Your task to perform on an android device: toggle notifications settings in the gmail app Image 0: 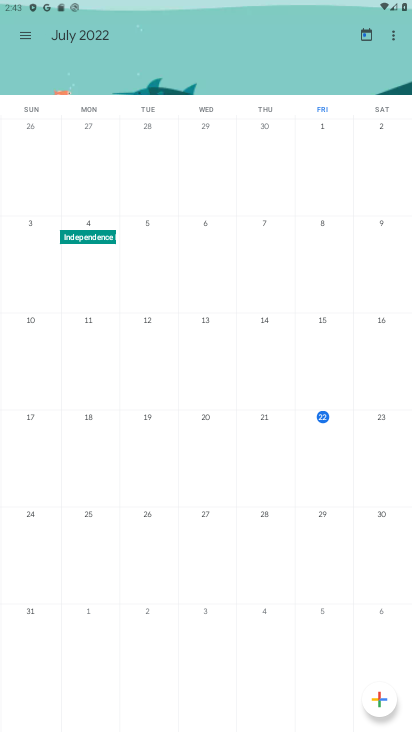
Step 0: press home button
Your task to perform on an android device: toggle notifications settings in the gmail app Image 1: 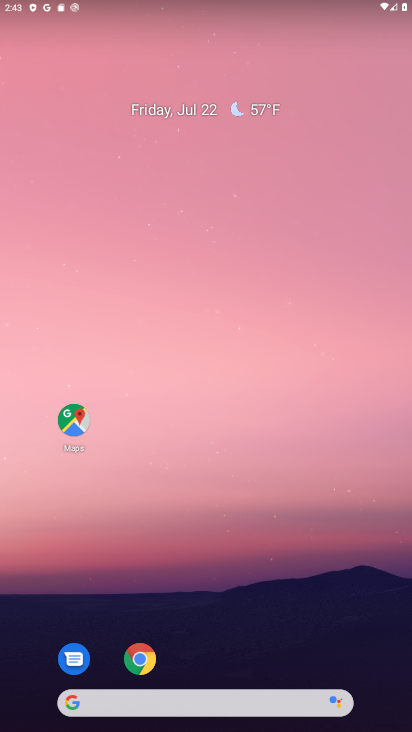
Step 1: drag from (216, 640) to (216, 54)
Your task to perform on an android device: toggle notifications settings in the gmail app Image 2: 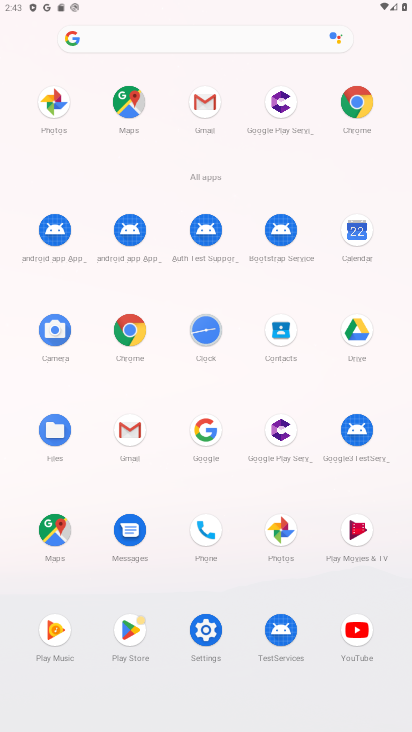
Step 2: click (122, 432)
Your task to perform on an android device: toggle notifications settings in the gmail app Image 3: 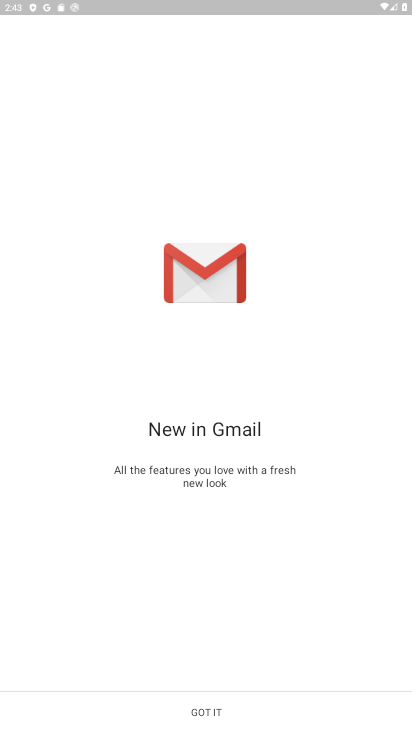
Step 3: click (192, 717)
Your task to perform on an android device: toggle notifications settings in the gmail app Image 4: 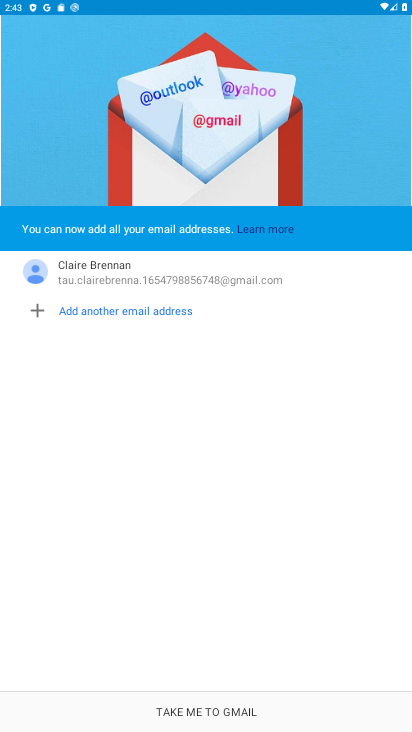
Step 4: click (192, 717)
Your task to perform on an android device: toggle notifications settings in the gmail app Image 5: 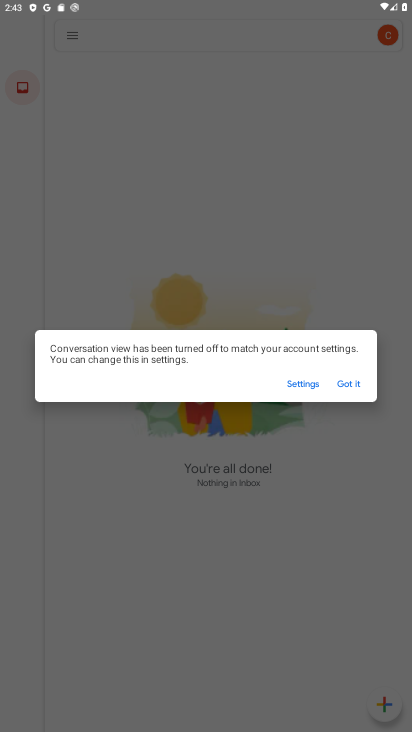
Step 5: click (348, 376)
Your task to perform on an android device: toggle notifications settings in the gmail app Image 6: 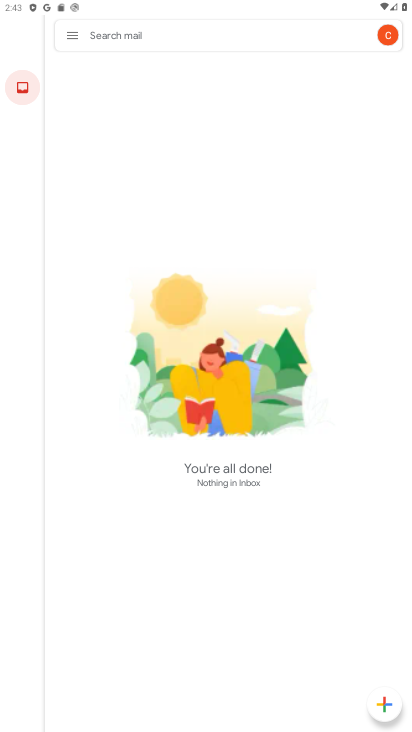
Step 6: click (82, 36)
Your task to perform on an android device: toggle notifications settings in the gmail app Image 7: 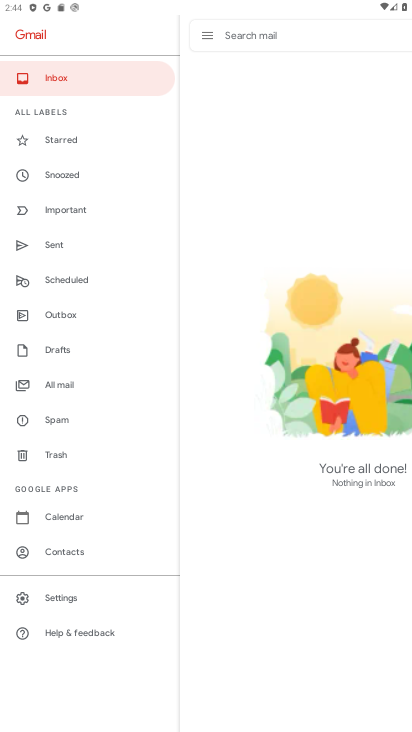
Step 7: click (81, 598)
Your task to perform on an android device: toggle notifications settings in the gmail app Image 8: 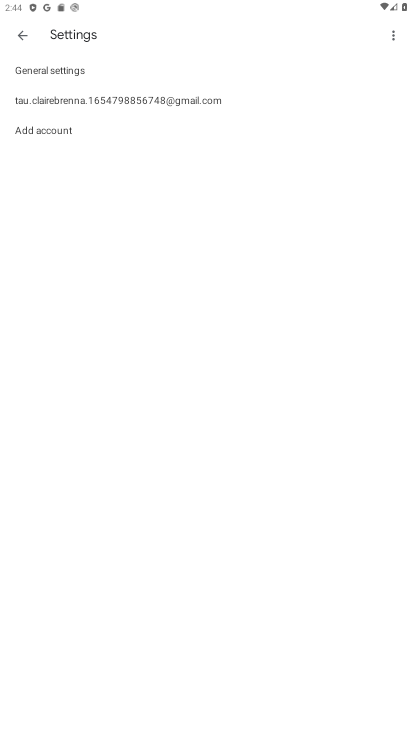
Step 8: click (167, 95)
Your task to perform on an android device: toggle notifications settings in the gmail app Image 9: 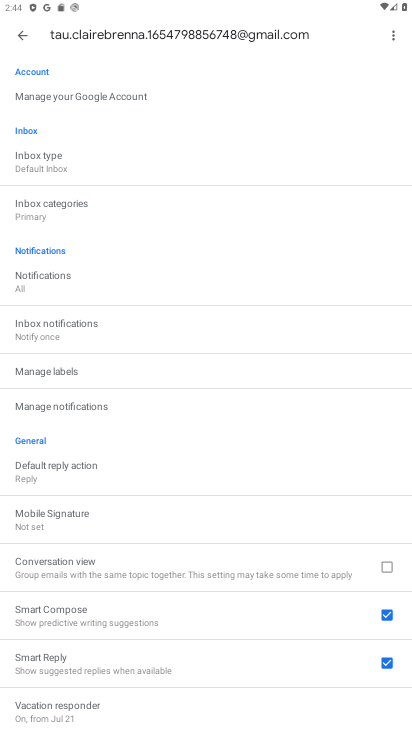
Step 9: click (40, 409)
Your task to perform on an android device: toggle notifications settings in the gmail app Image 10: 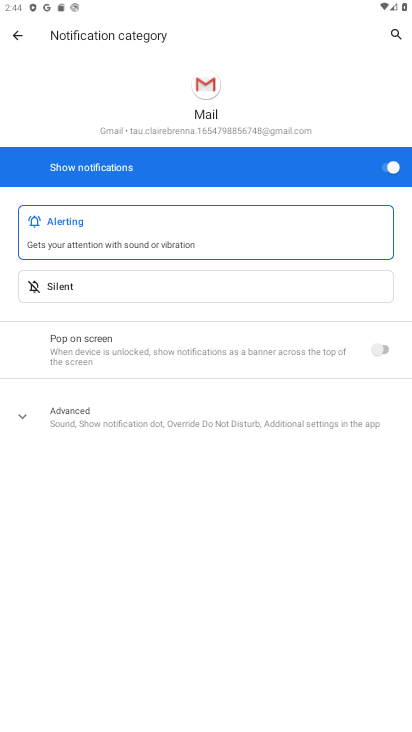
Step 10: click (380, 176)
Your task to perform on an android device: toggle notifications settings in the gmail app Image 11: 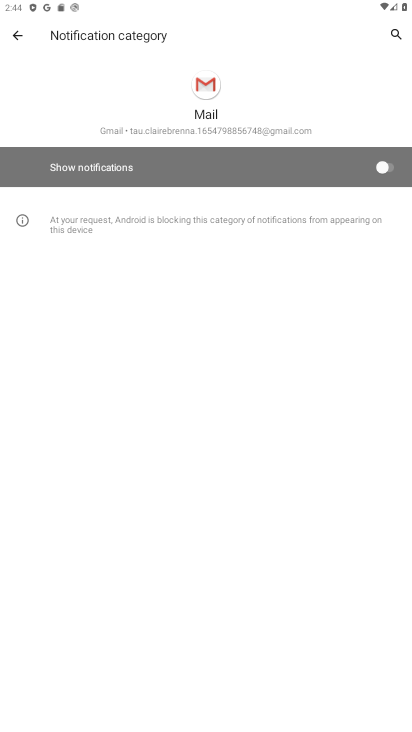
Step 11: task complete